Your task to perform on an android device: delete the emails in spam in the gmail app Image 0: 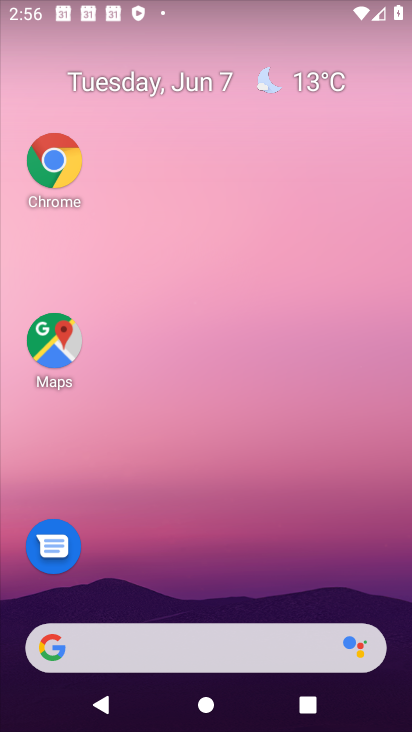
Step 0: drag from (278, 37) to (210, 565)
Your task to perform on an android device: delete the emails in spam in the gmail app Image 1: 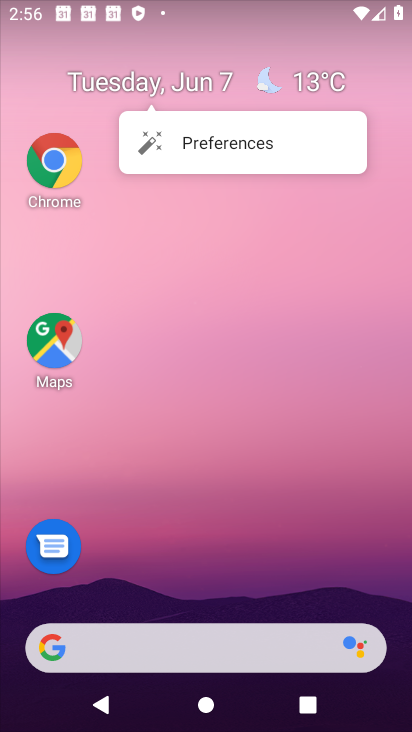
Step 1: drag from (187, 572) to (258, 79)
Your task to perform on an android device: delete the emails in spam in the gmail app Image 2: 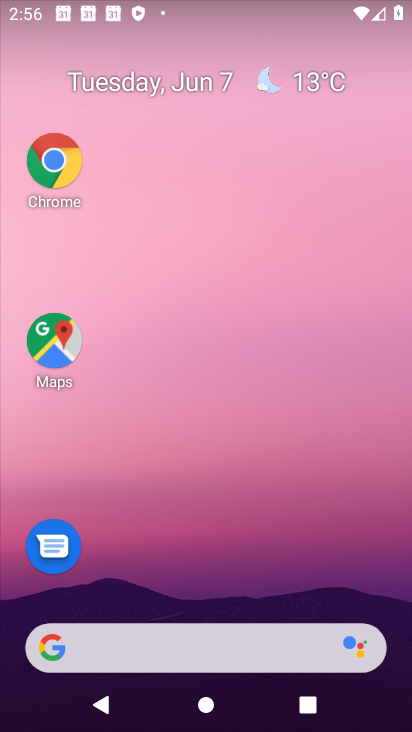
Step 2: drag from (228, 428) to (297, 2)
Your task to perform on an android device: delete the emails in spam in the gmail app Image 3: 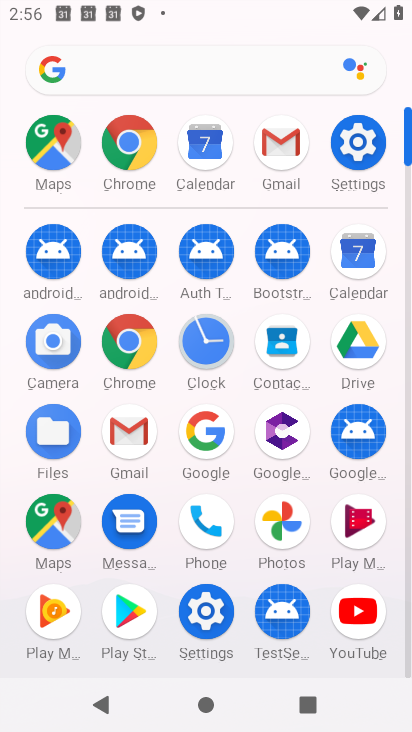
Step 3: click (135, 428)
Your task to perform on an android device: delete the emails in spam in the gmail app Image 4: 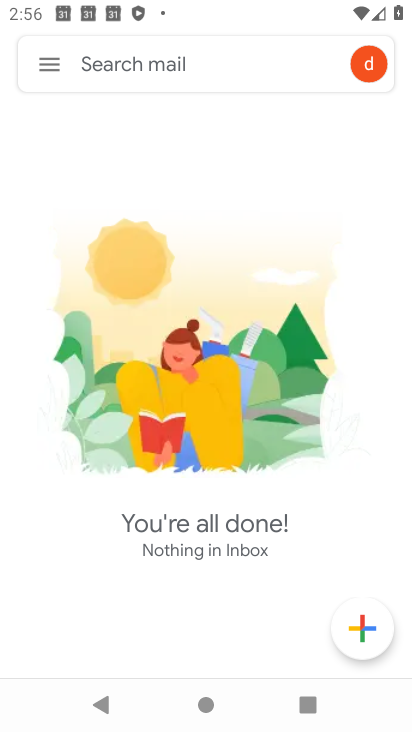
Step 4: click (48, 48)
Your task to perform on an android device: delete the emails in spam in the gmail app Image 5: 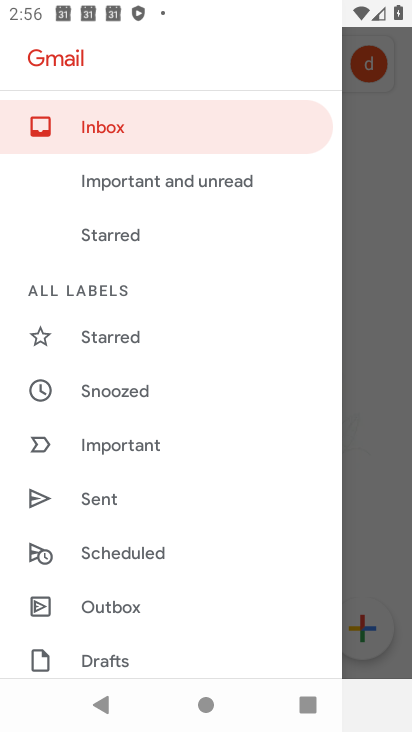
Step 5: drag from (127, 612) to (234, 89)
Your task to perform on an android device: delete the emails in spam in the gmail app Image 6: 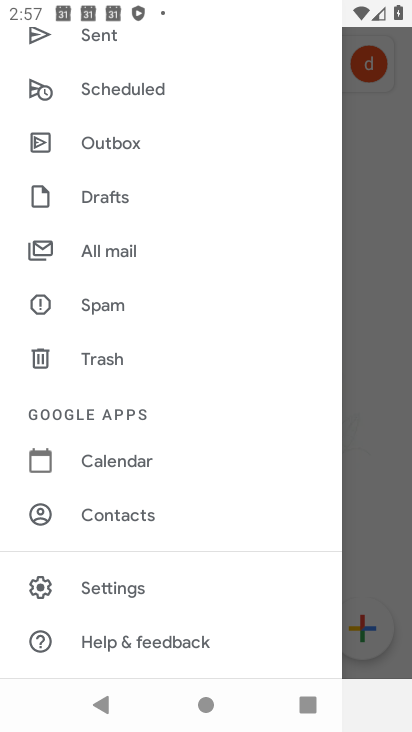
Step 6: click (97, 311)
Your task to perform on an android device: delete the emails in spam in the gmail app Image 7: 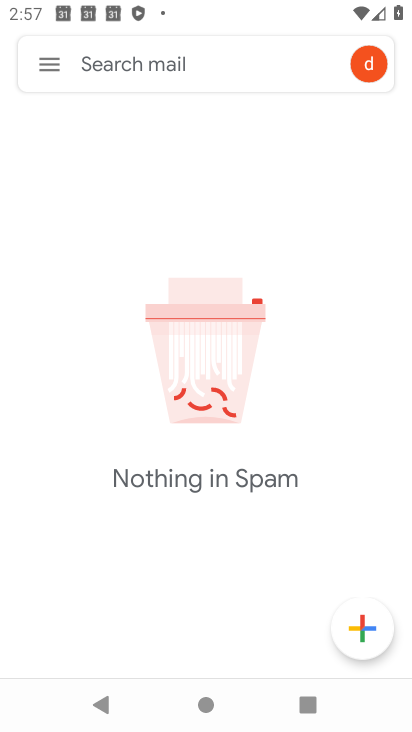
Step 7: task complete